Your task to perform on an android device: Go to battery settings Image 0: 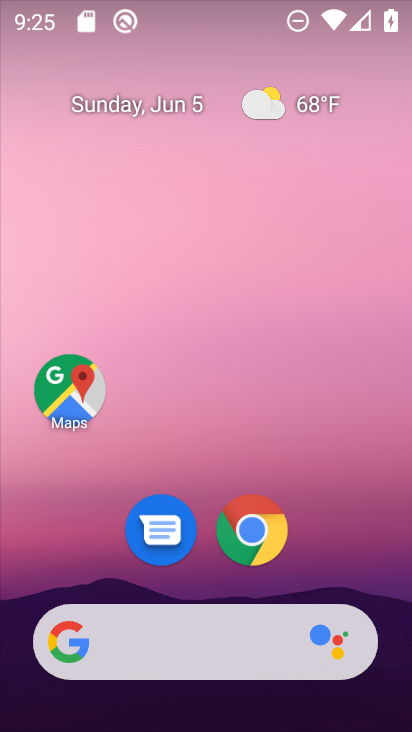
Step 0: drag from (397, 627) to (369, 54)
Your task to perform on an android device: Go to battery settings Image 1: 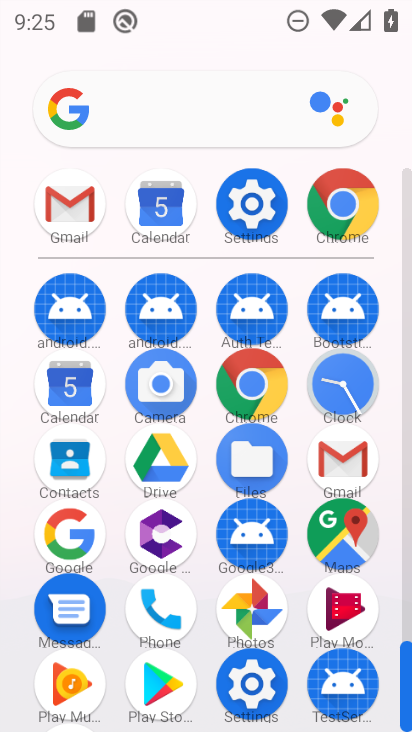
Step 1: click (252, 684)
Your task to perform on an android device: Go to battery settings Image 2: 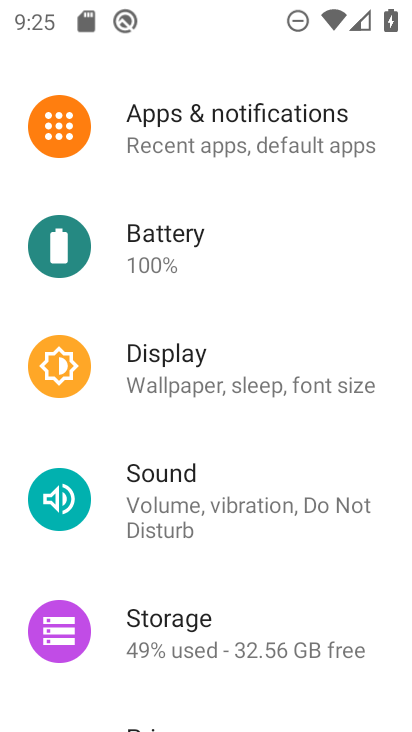
Step 2: click (168, 249)
Your task to perform on an android device: Go to battery settings Image 3: 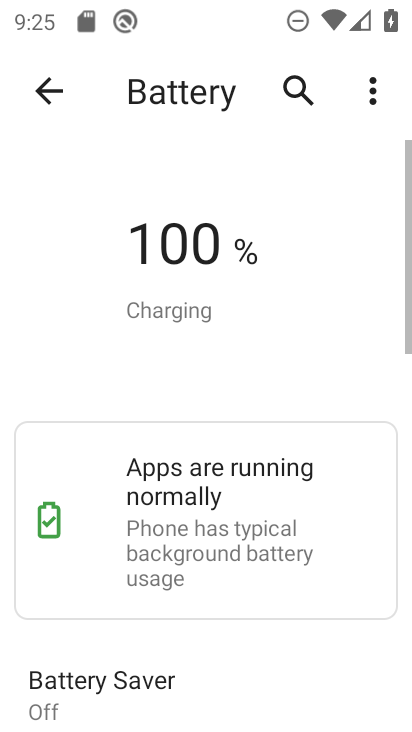
Step 3: task complete